Your task to perform on an android device: clear all cookies in the chrome app Image 0: 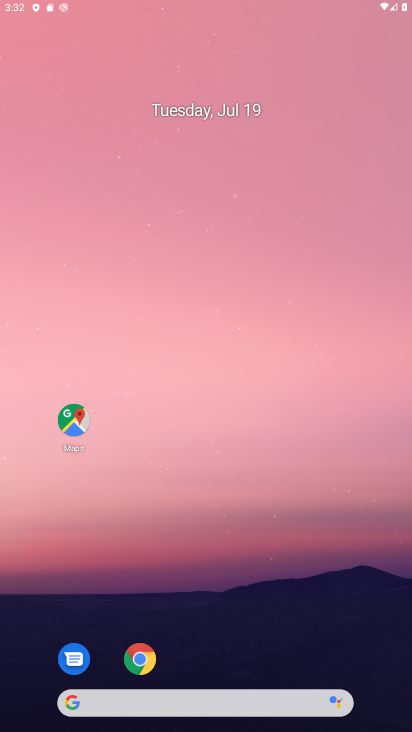
Step 0: click (273, 3)
Your task to perform on an android device: clear all cookies in the chrome app Image 1: 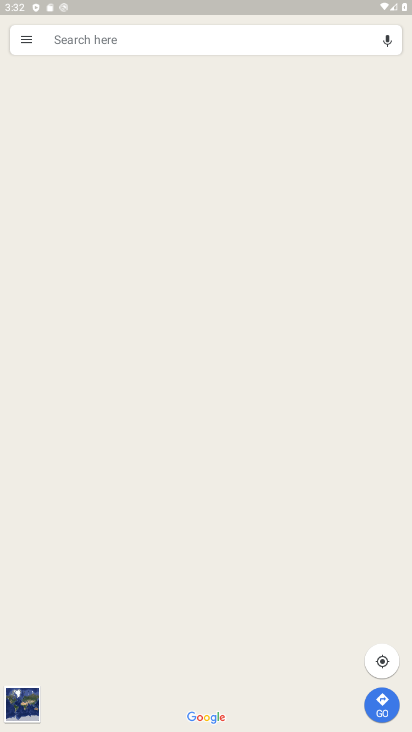
Step 1: drag from (249, 446) to (242, 3)
Your task to perform on an android device: clear all cookies in the chrome app Image 2: 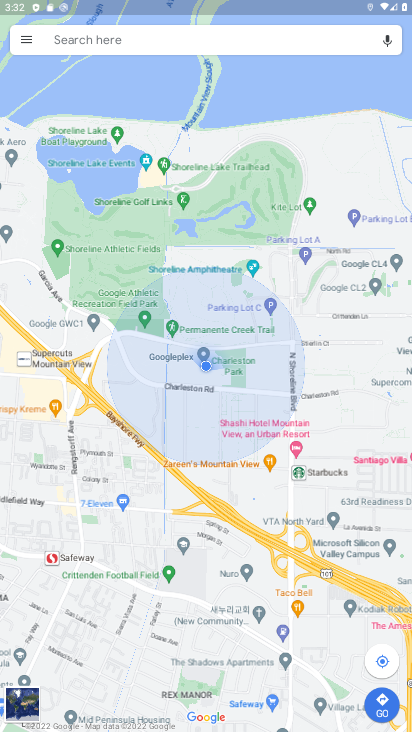
Step 2: press back button
Your task to perform on an android device: clear all cookies in the chrome app Image 3: 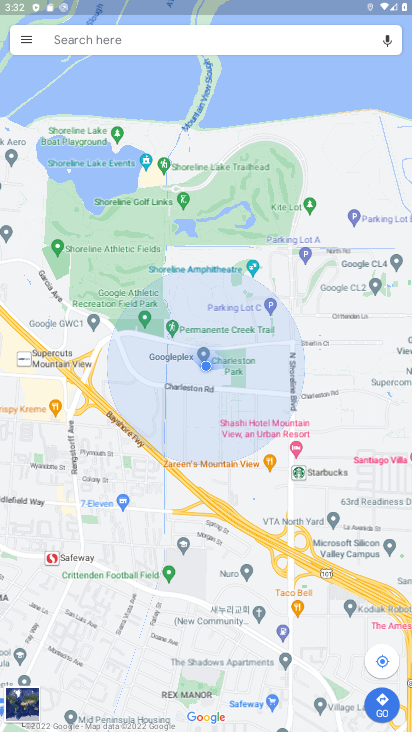
Step 3: press back button
Your task to perform on an android device: clear all cookies in the chrome app Image 4: 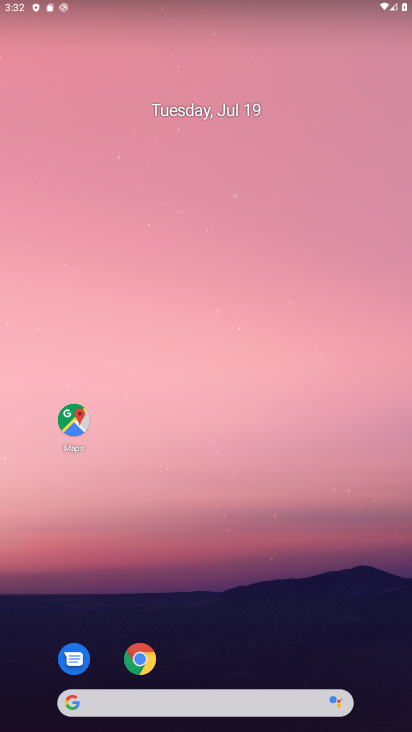
Step 4: drag from (235, 684) to (118, 163)
Your task to perform on an android device: clear all cookies in the chrome app Image 5: 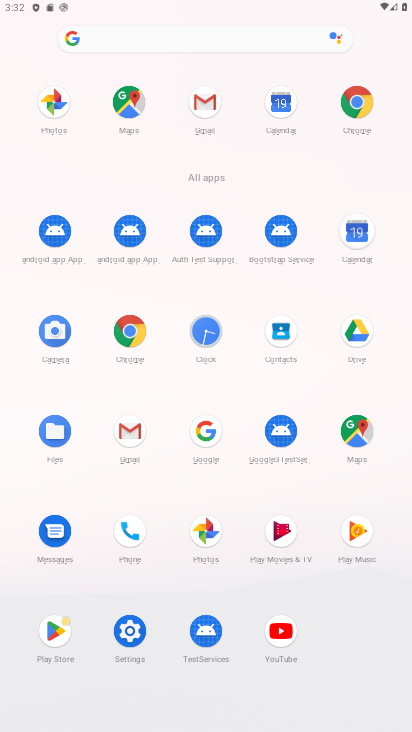
Step 5: click (350, 99)
Your task to perform on an android device: clear all cookies in the chrome app Image 6: 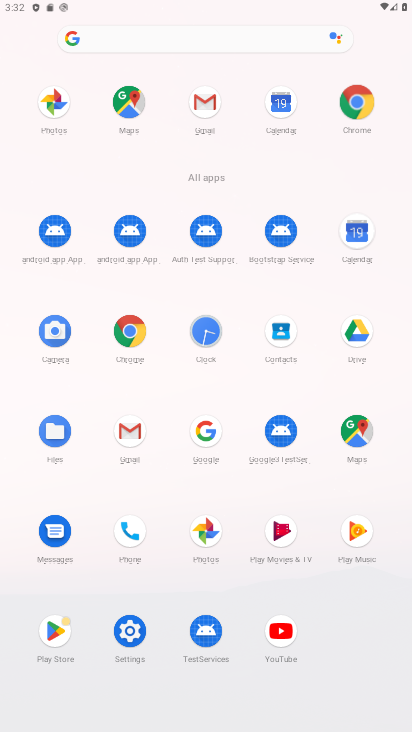
Step 6: click (347, 106)
Your task to perform on an android device: clear all cookies in the chrome app Image 7: 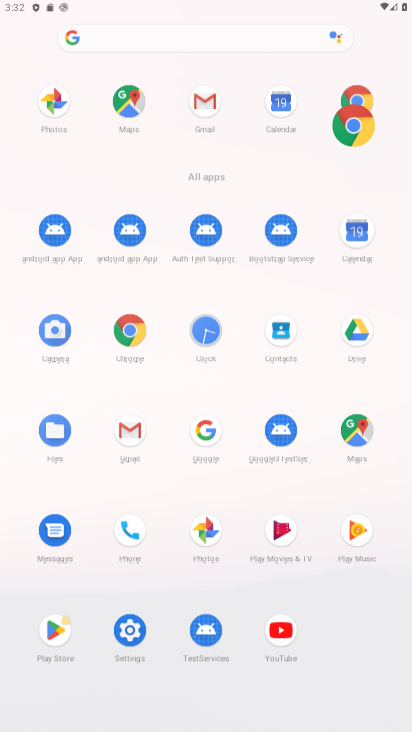
Step 7: click (347, 106)
Your task to perform on an android device: clear all cookies in the chrome app Image 8: 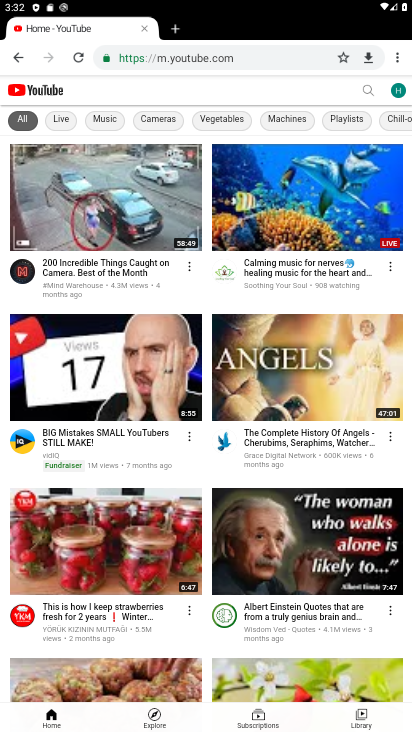
Step 8: drag from (397, 58) to (300, 356)
Your task to perform on an android device: clear all cookies in the chrome app Image 9: 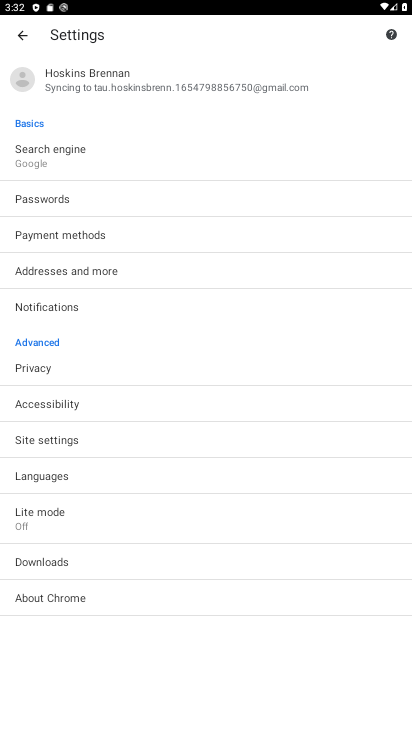
Step 9: click (35, 438)
Your task to perform on an android device: clear all cookies in the chrome app Image 10: 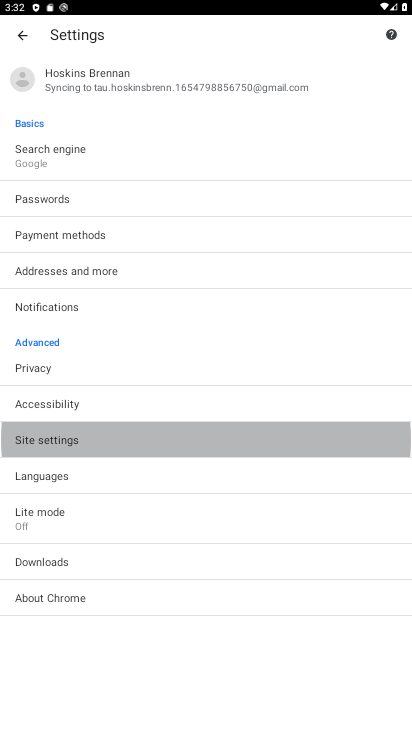
Step 10: click (36, 437)
Your task to perform on an android device: clear all cookies in the chrome app Image 11: 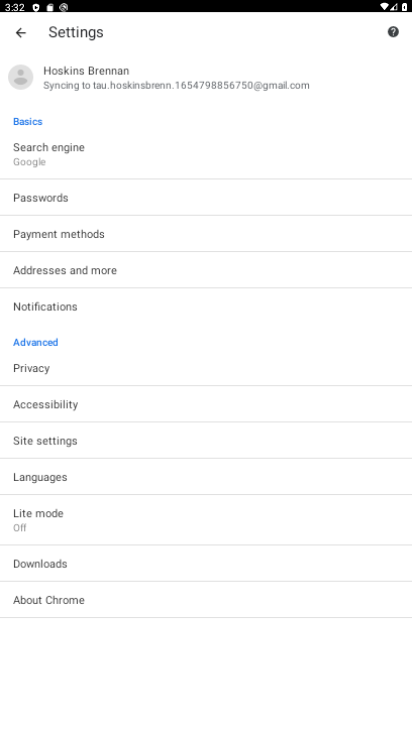
Step 11: click (36, 437)
Your task to perform on an android device: clear all cookies in the chrome app Image 12: 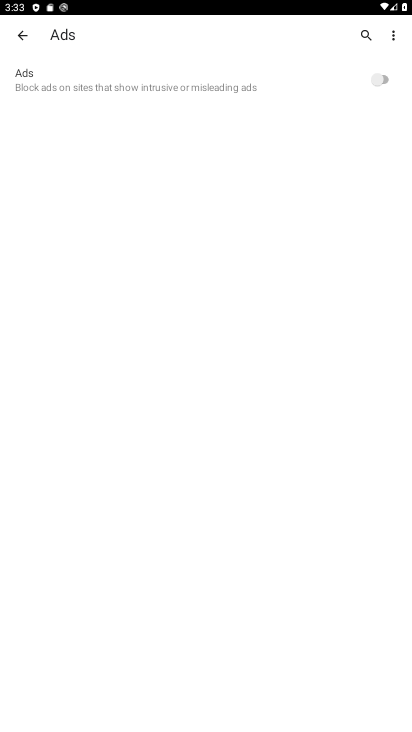
Step 12: click (1, 29)
Your task to perform on an android device: clear all cookies in the chrome app Image 13: 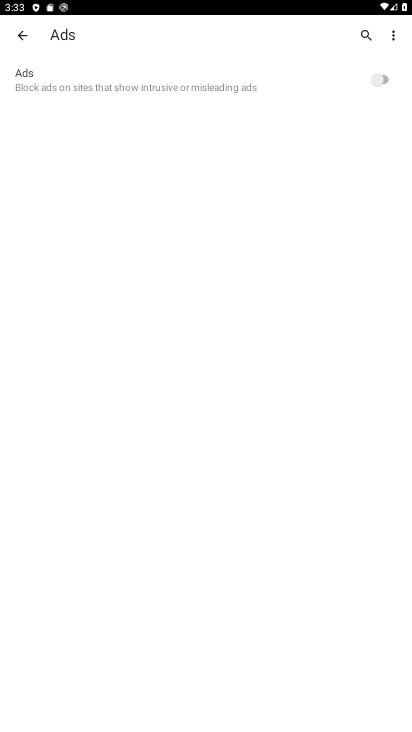
Step 13: drag from (392, 31) to (273, 208)
Your task to perform on an android device: clear all cookies in the chrome app Image 14: 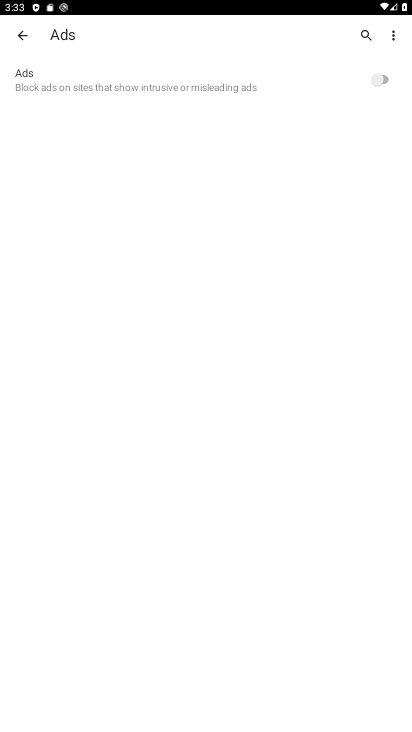
Step 14: click (378, 34)
Your task to perform on an android device: clear all cookies in the chrome app Image 15: 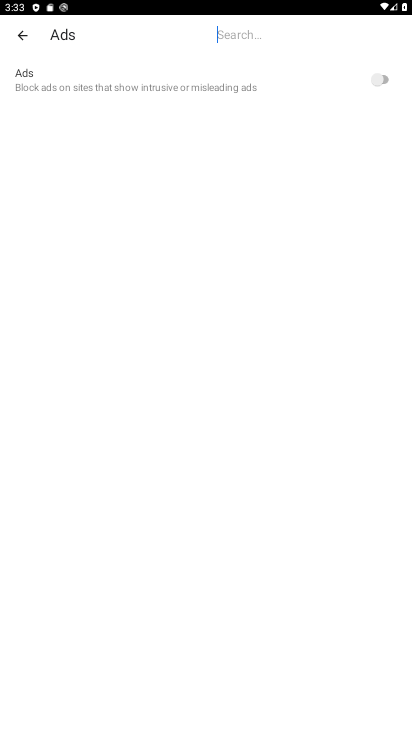
Step 15: click (381, 36)
Your task to perform on an android device: clear all cookies in the chrome app Image 16: 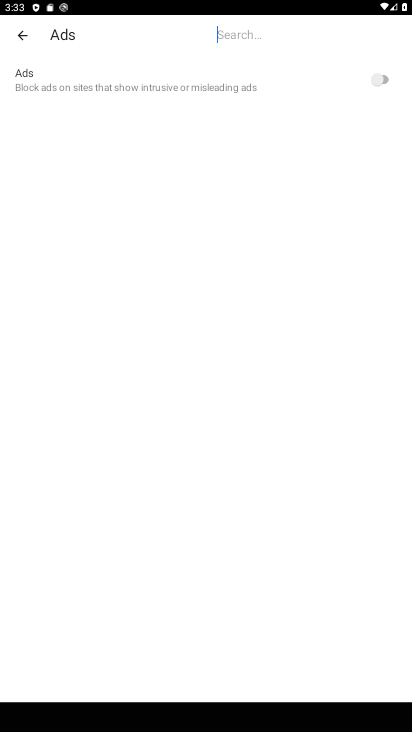
Step 16: click (386, 42)
Your task to perform on an android device: clear all cookies in the chrome app Image 17: 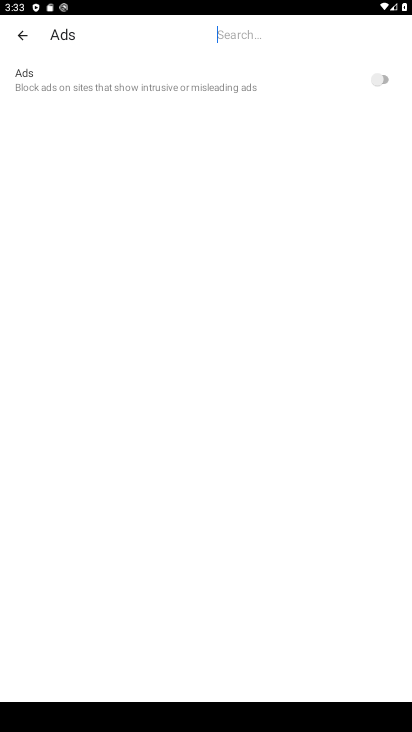
Step 17: click (19, 32)
Your task to perform on an android device: clear all cookies in the chrome app Image 18: 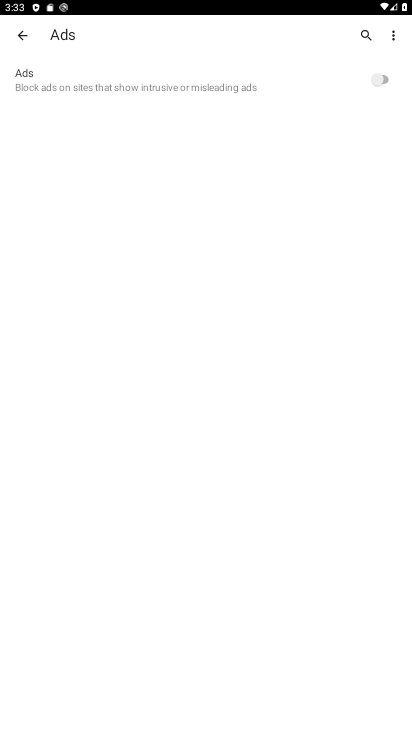
Step 18: drag from (388, 33) to (355, 177)
Your task to perform on an android device: clear all cookies in the chrome app Image 19: 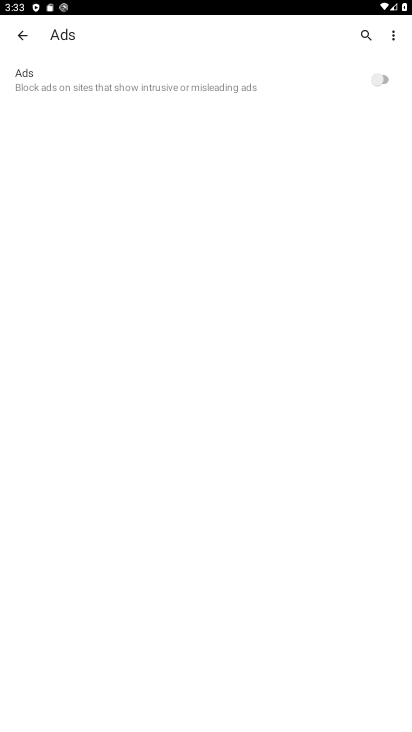
Step 19: click (27, 31)
Your task to perform on an android device: clear all cookies in the chrome app Image 20: 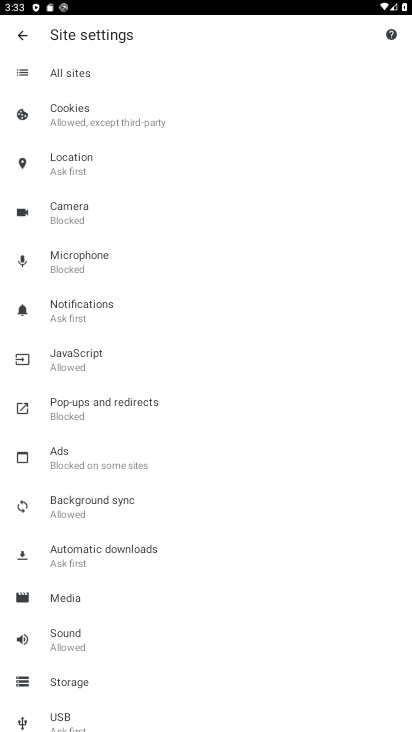
Step 20: drag from (388, 32) to (49, 120)
Your task to perform on an android device: clear all cookies in the chrome app Image 21: 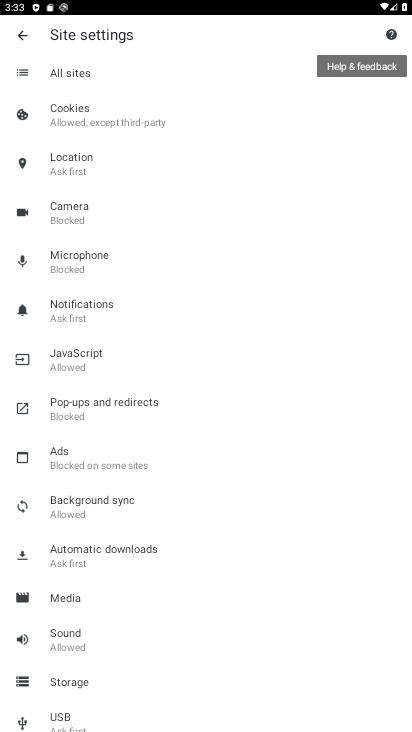
Step 21: click (63, 134)
Your task to perform on an android device: clear all cookies in the chrome app Image 22: 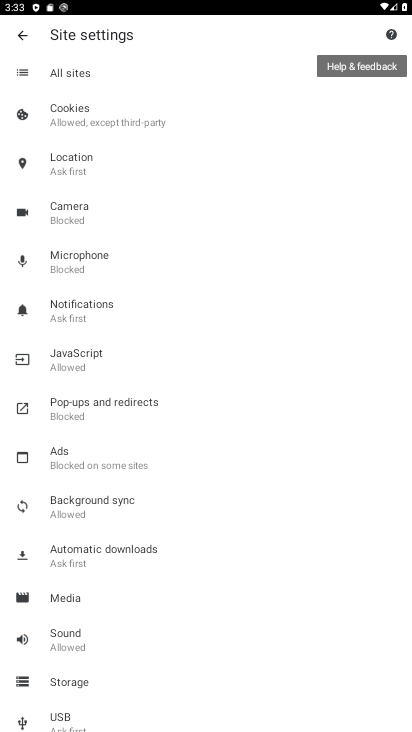
Step 22: click (64, 135)
Your task to perform on an android device: clear all cookies in the chrome app Image 23: 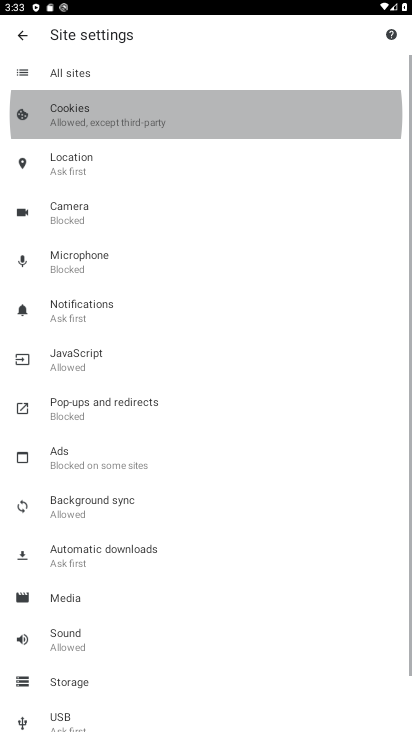
Step 23: click (65, 134)
Your task to perform on an android device: clear all cookies in the chrome app Image 24: 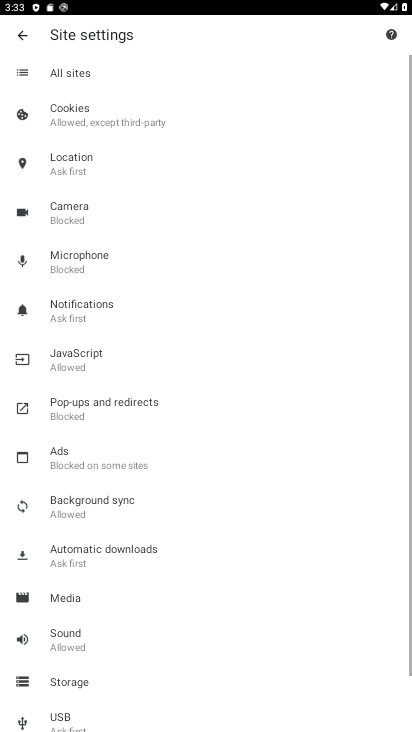
Step 24: click (65, 134)
Your task to perform on an android device: clear all cookies in the chrome app Image 25: 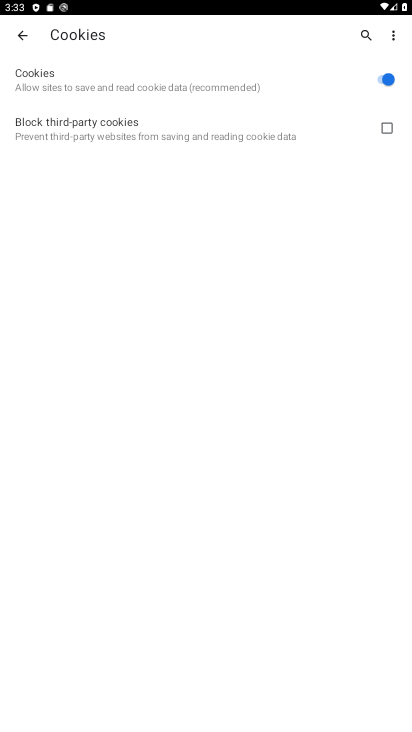
Step 25: click (390, 73)
Your task to perform on an android device: clear all cookies in the chrome app Image 26: 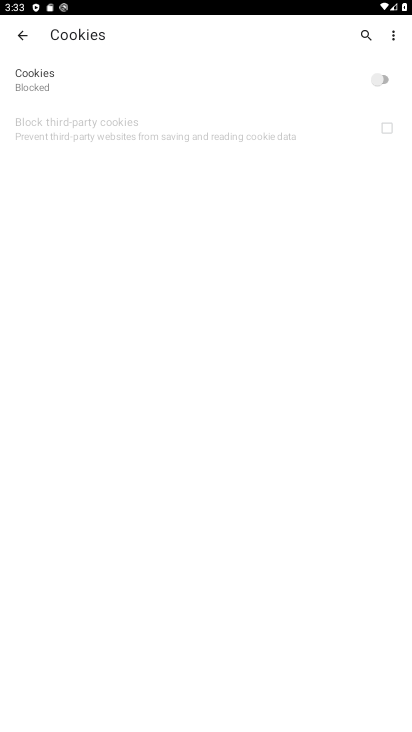
Step 26: task complete